Your task to perform on an android device: Search for seafood restaurants on Google Maps Image 0: 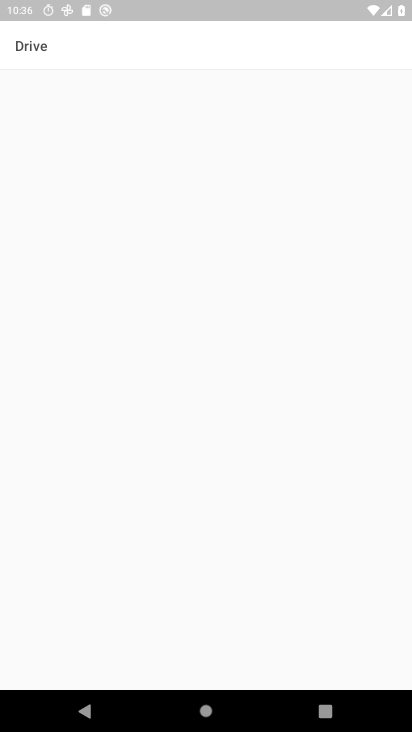
Step 0: press back button
Your task to perform on an android device: Search for seafood restaurants on Google Maps Image 1: 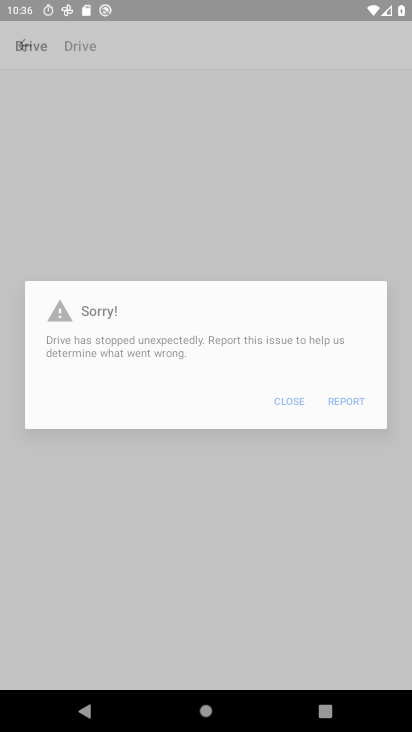
Step 1: press back button
Your task to perform on an android device: Search for seafood restaurants on Google Maps Image 2: 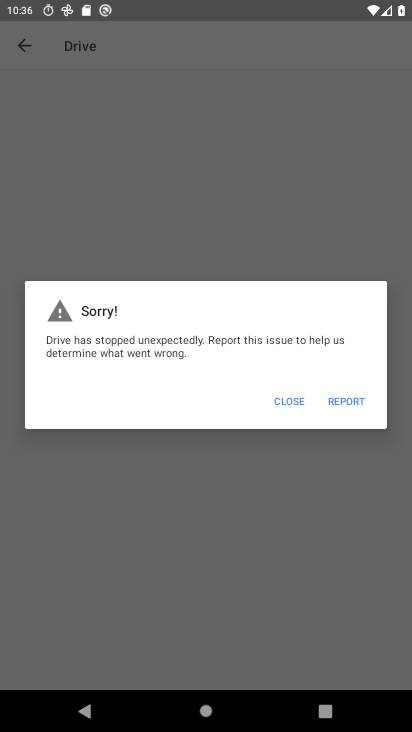
Step 2: click (187, 187)
Your task to perform on an android device: Search for seafood restaurants on Google Maps Image 3: 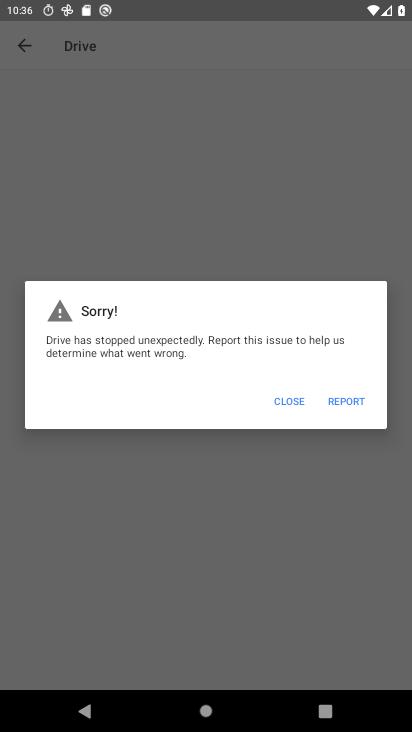
Step 3: click (188, 187)
Your task to perform on an android device: Search for seafood restaurants on Google Maps Image 4: 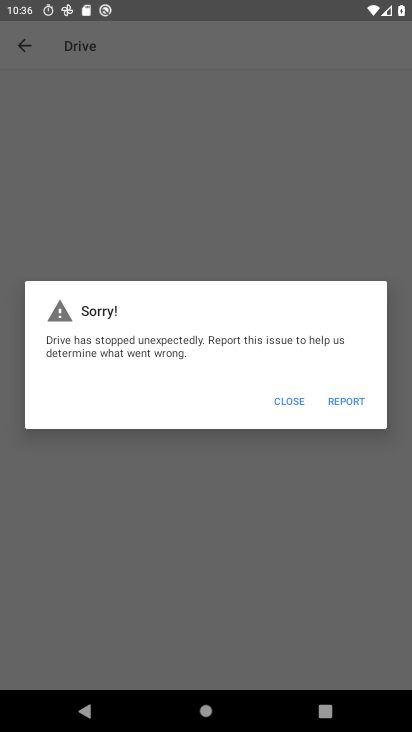
Step 4: click (188, 187)
Your task to perform on an android device: Search for seafood restaurants on Google Maps Image 5: 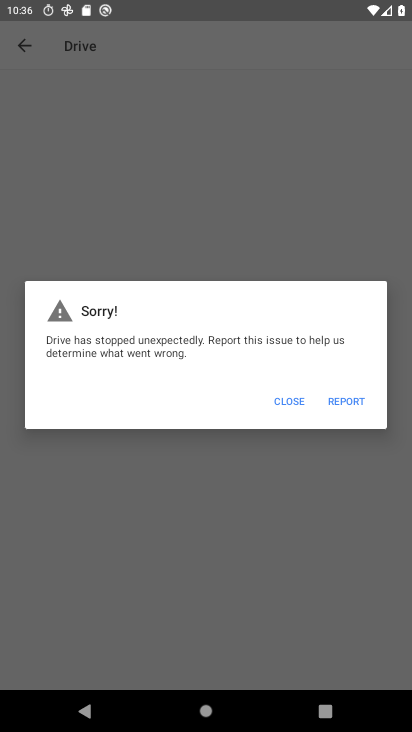
Step 5: click (284, 403)
Your task to perform on an android device: Search for seafood restaurants on Google Maps Image 6: 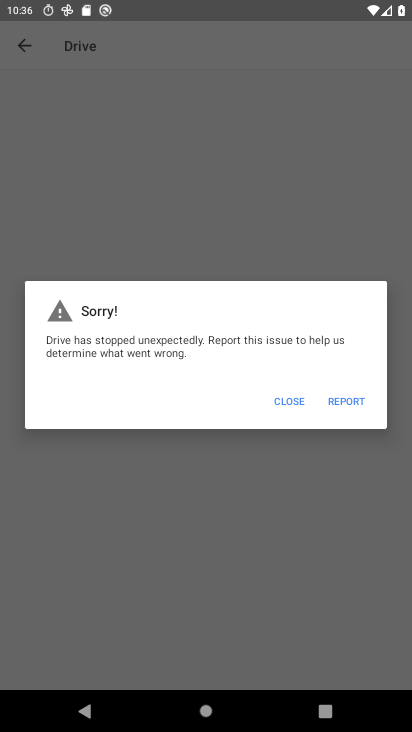
Step 6: click (289, 396)
Your task to perform on an android device: Search for seafood restaurants on Google Maps Image 7: 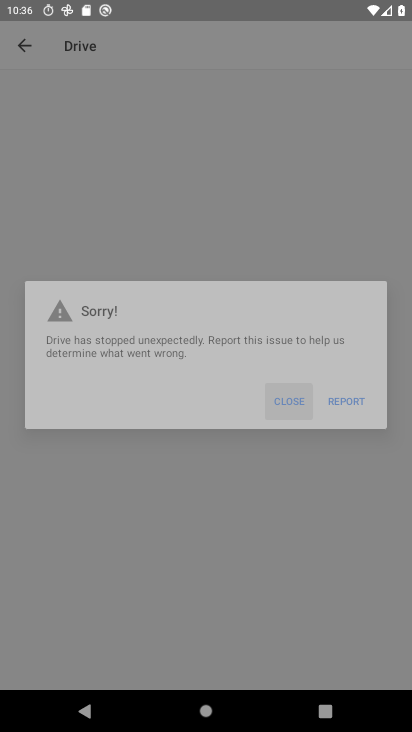
Step 7: click (289, 396)
Your task to perform on an android device: Search for seafood restaurants on Google Maps Image 8: 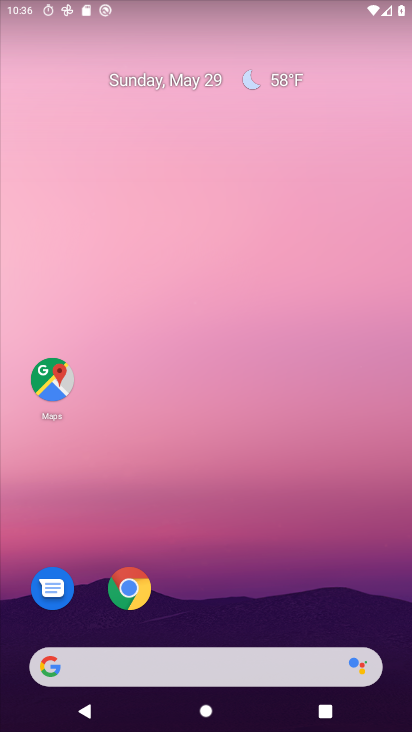
Step 8: drag from (193, 621) to (104, 48)
Your task to perform on an android device: Search for seafood restaurants on Google Maps Image 9: 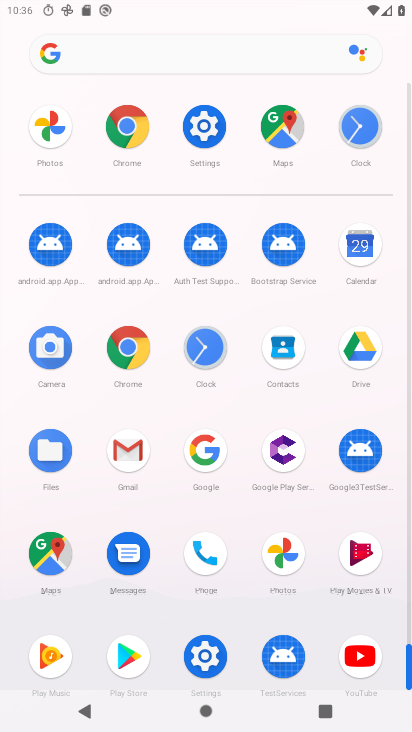
Step 9: click (57, 552)
Your task to perform on an android device: Search for seafood restaurants on Google Maps Image 10: 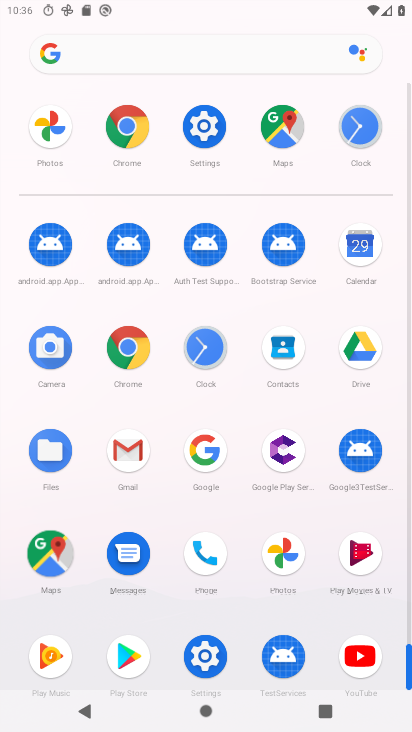
Step 10: click (56, 553)
Your task to perform on an android device: Search for seafood restaurants on Google Maps Image 11: 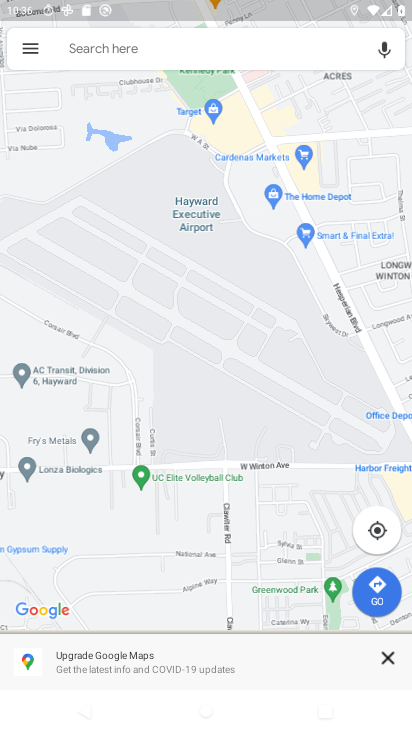
Step 11: click (82, 62)
Your task to perform on an android device: Search for seafood restaurants on Google Maps Image 12: 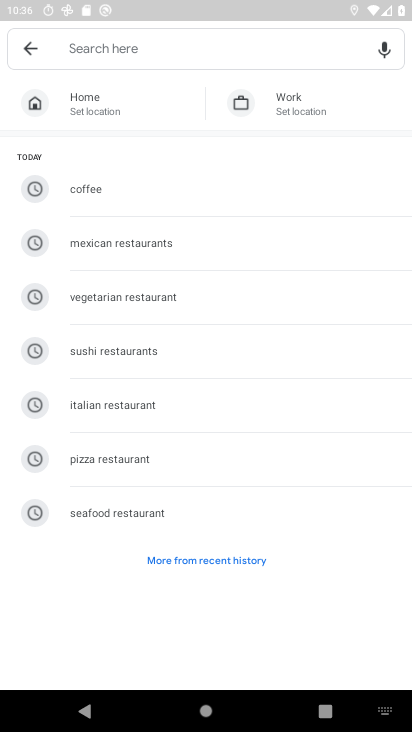
Step 12: click (129, 498)
Your task to perform on an android device: Search for seafood restaurants on Google Maps Image 13: 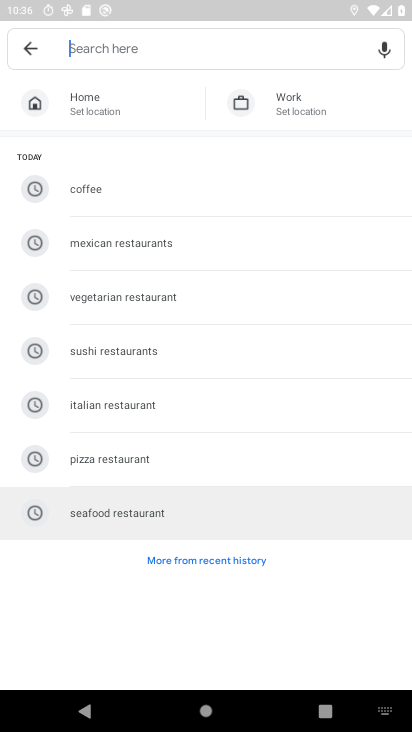
Step 13: click (132, 507)
Your task to perform on an android device: Search for seafood restaurants on Google Maps Image 14: 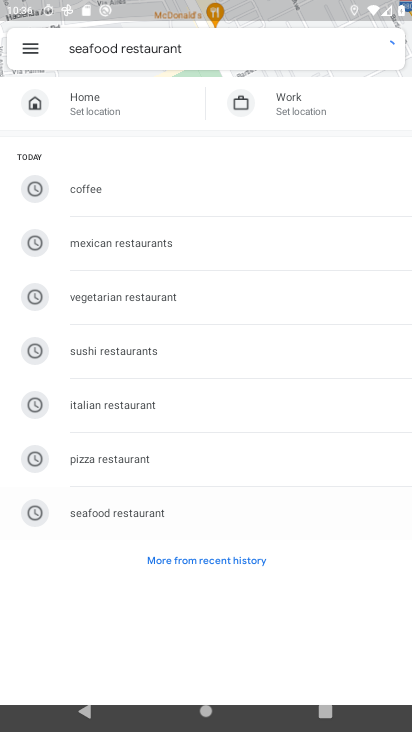
Step 14: click (132, 507)
Your task to perform on an android device: Search for seafood restaurants on Google Maps Image 15: 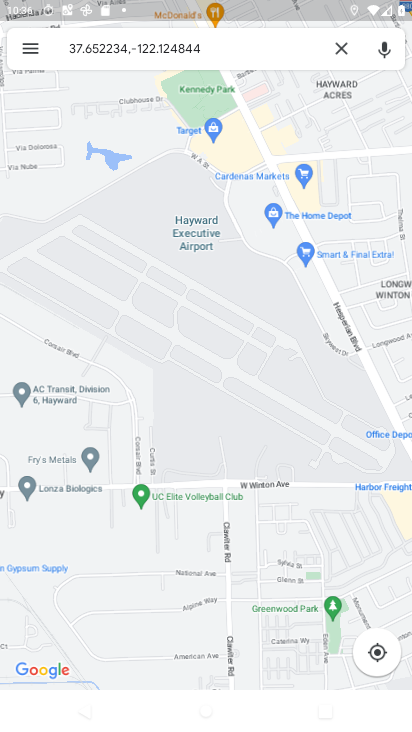
Step 15: task complete